Your task to perform on an android device: open wifi settings Image 0: 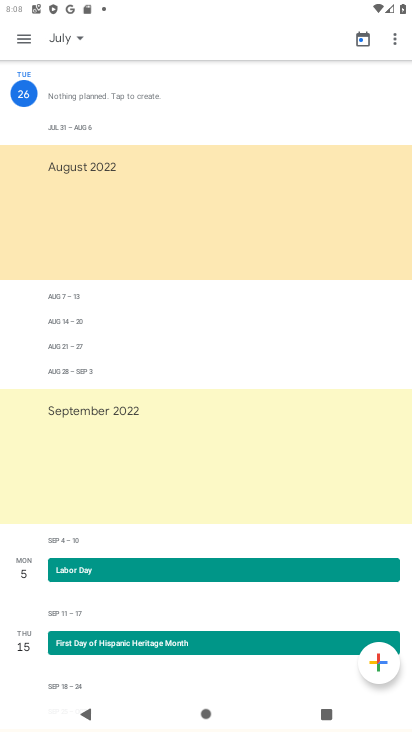
Step 0: press home button
Your task to perform on an android device: open wifi settings Image 1: 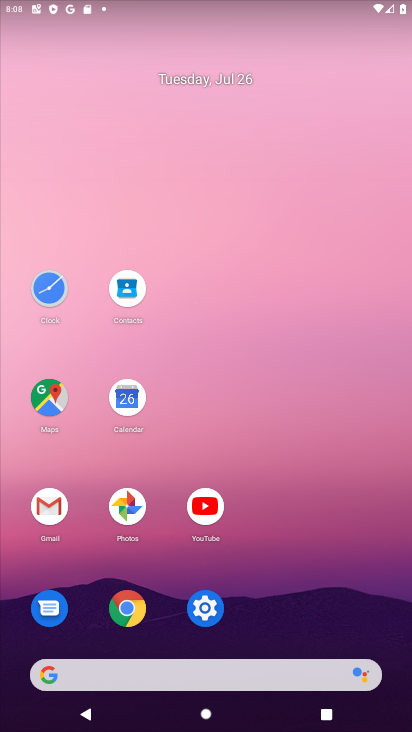
Step 1: click (207, 610)
Your task to perform on an android device: open wifi settings Image 2: 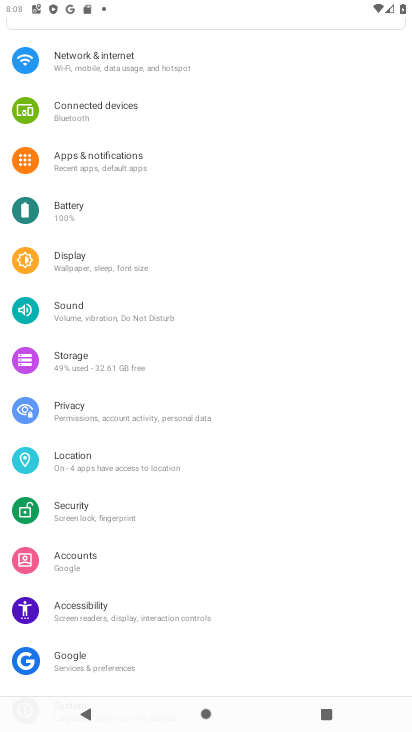
Step 2: click (83, 57)
Your task to perform on an android device: open wifi settings Image 3: 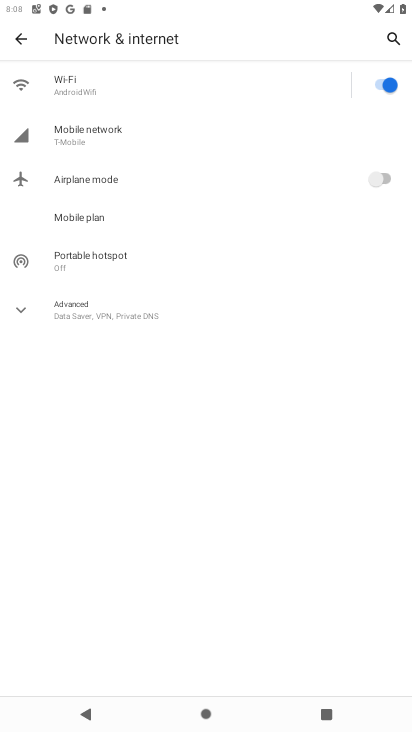
Step 3: click (122, 85)
Your task to perform on an android device: open wifi settings Image 4: 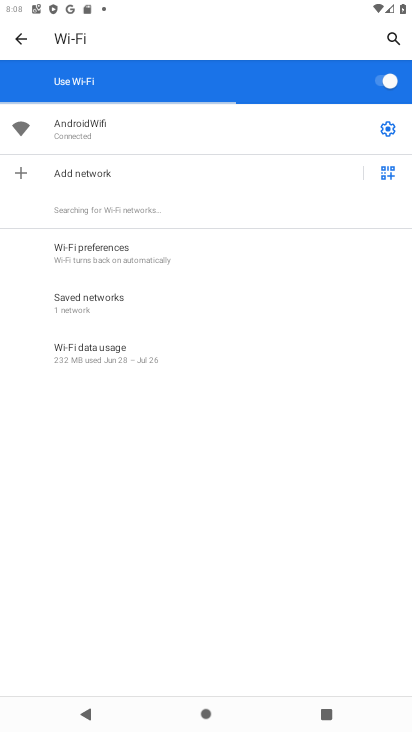
Step 4: task complete